Your task to perform on an android device: Search for "razer blackwidow" on target, select the first entry, and add it to the cart. Image 0: 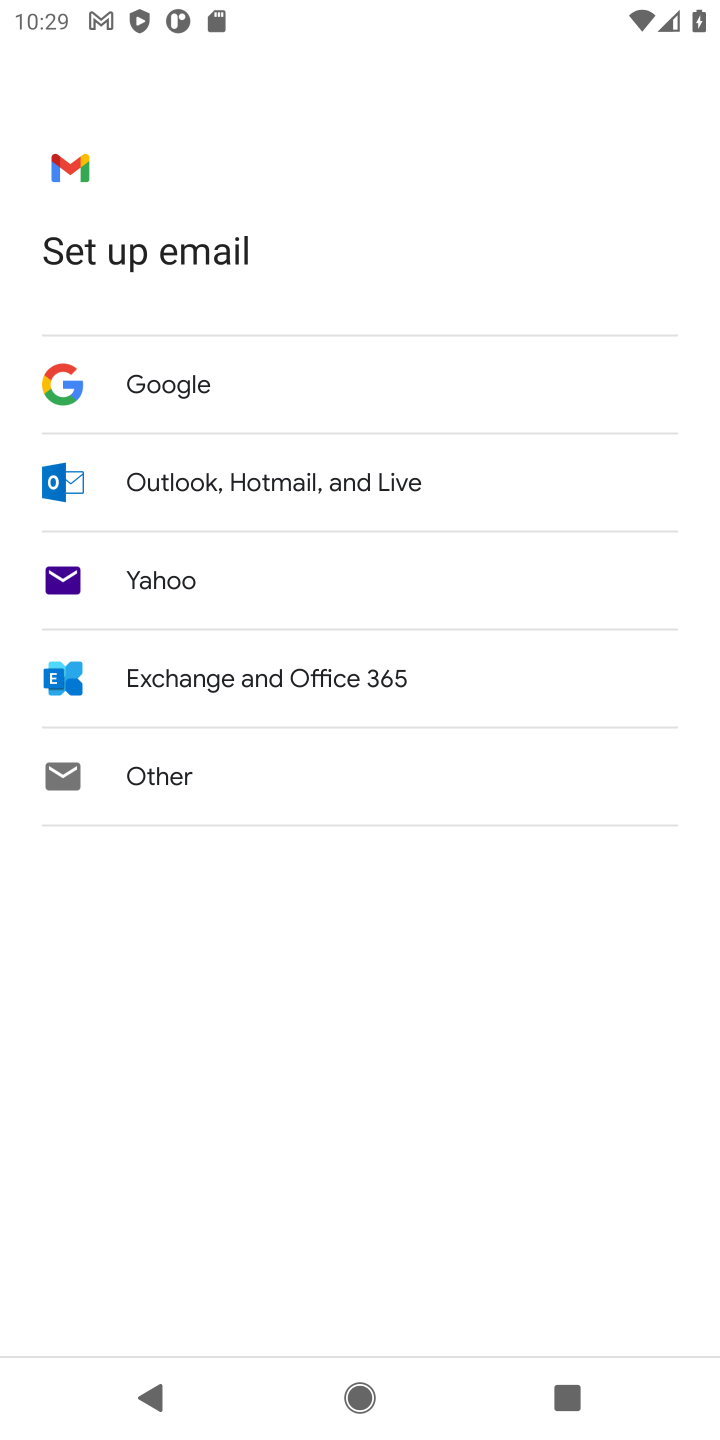
Step 0: press home button
Your task to perform on an android device: Search for "razer blackwidow" on target, select the first entry, and add it to the cart. Image 1: 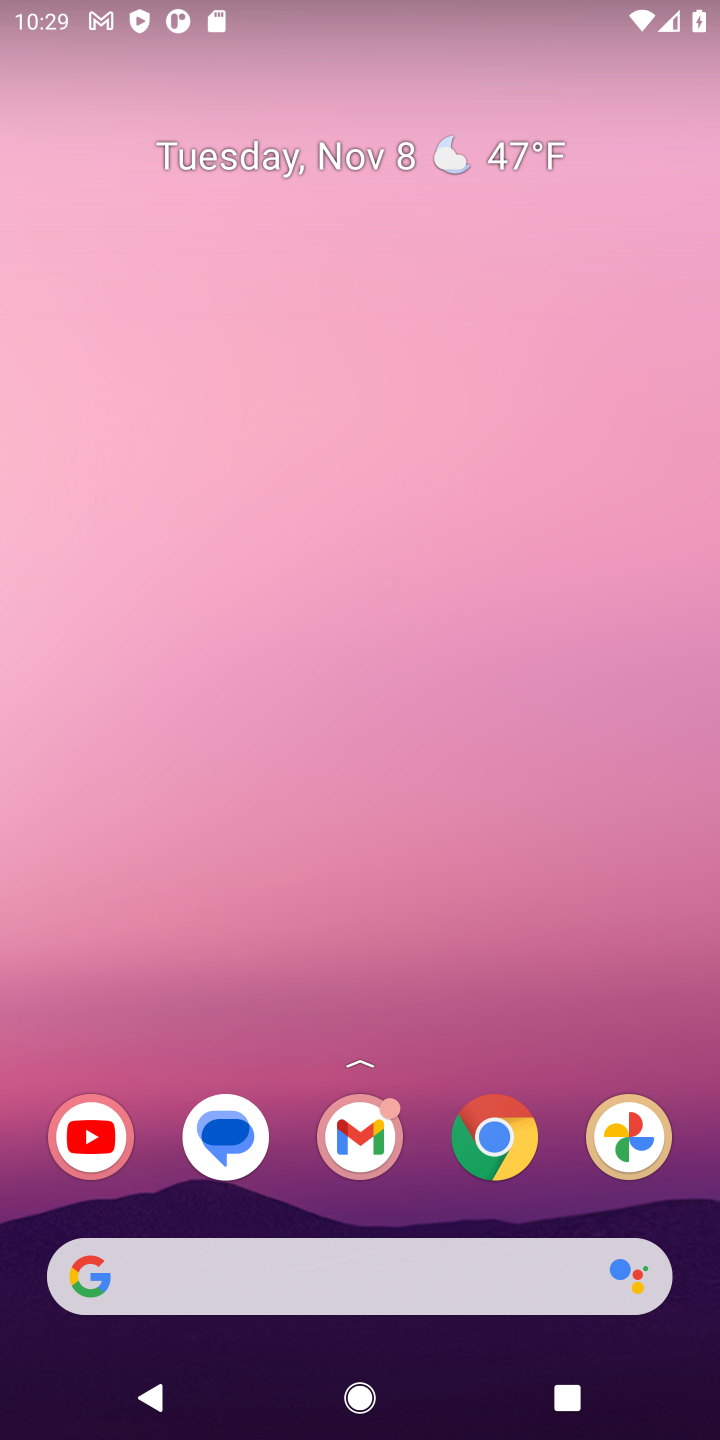
Step 1: click (496, 1141)
Your task to perform on an android device: Search for "razer blackwidow" on target, select the first entry, and add it to the cart. Image 2: 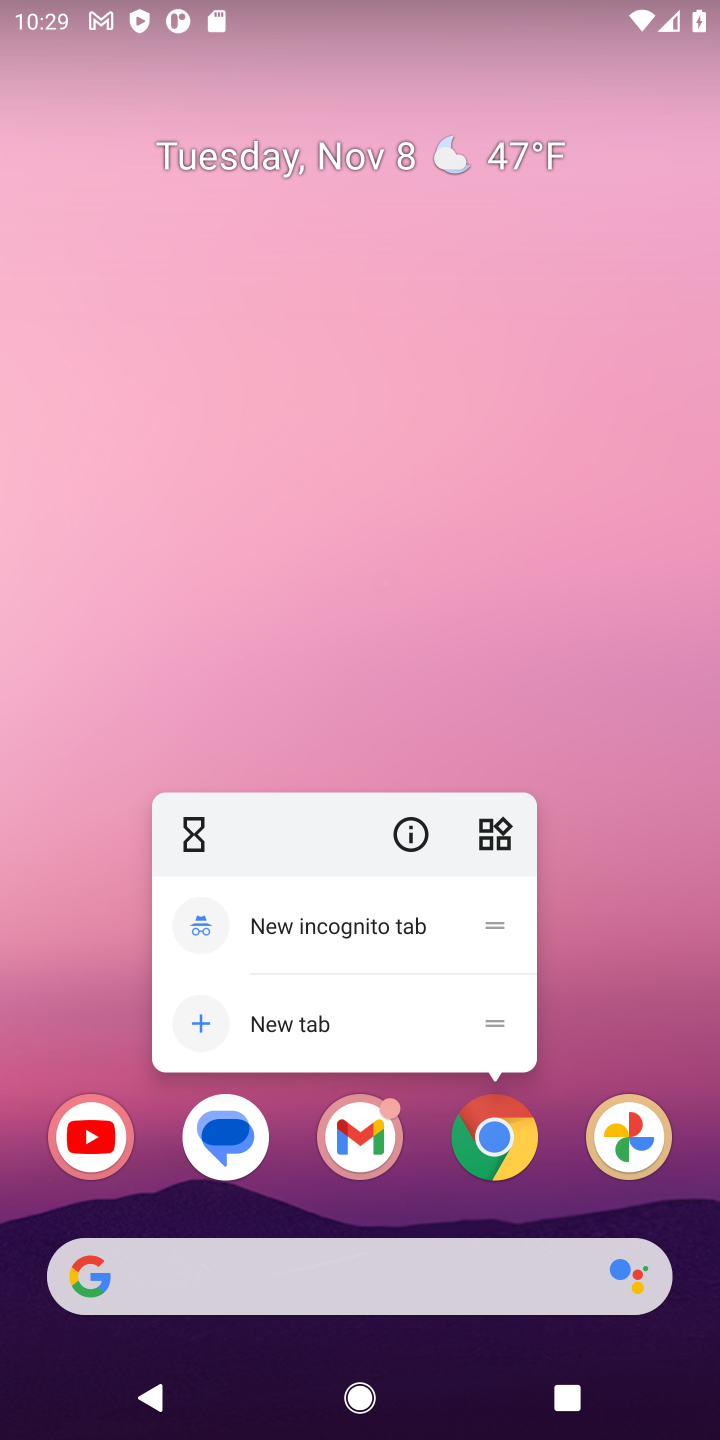
Step 2: click (496, 1141)
Your task to perform on an android device: Search for "razer blackwidow" on target, select the first entry, and add it to the cart. Image 3: 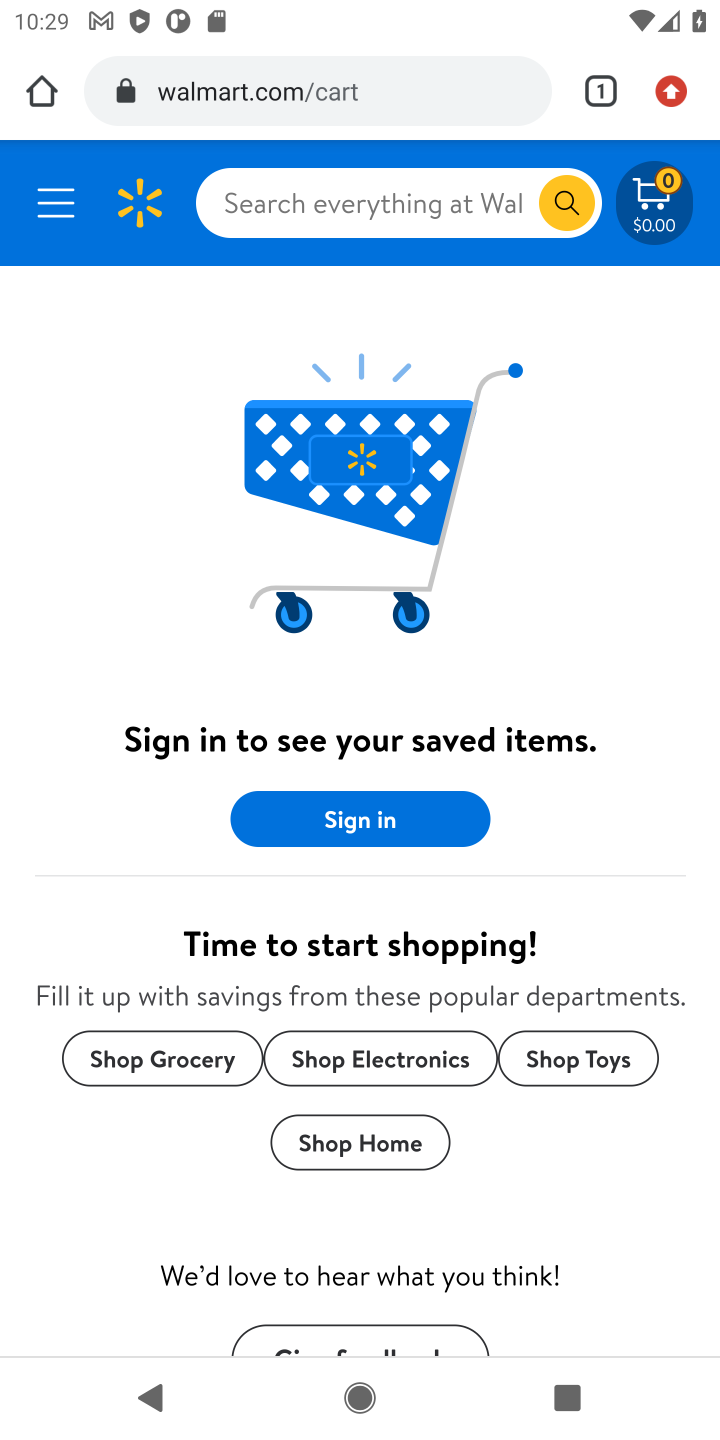
Step 3: click (311, 86)
Your task to perform on an android device: Search for "razer blackwidow" on target, select the first entry, and add it to the cart. Image 4: 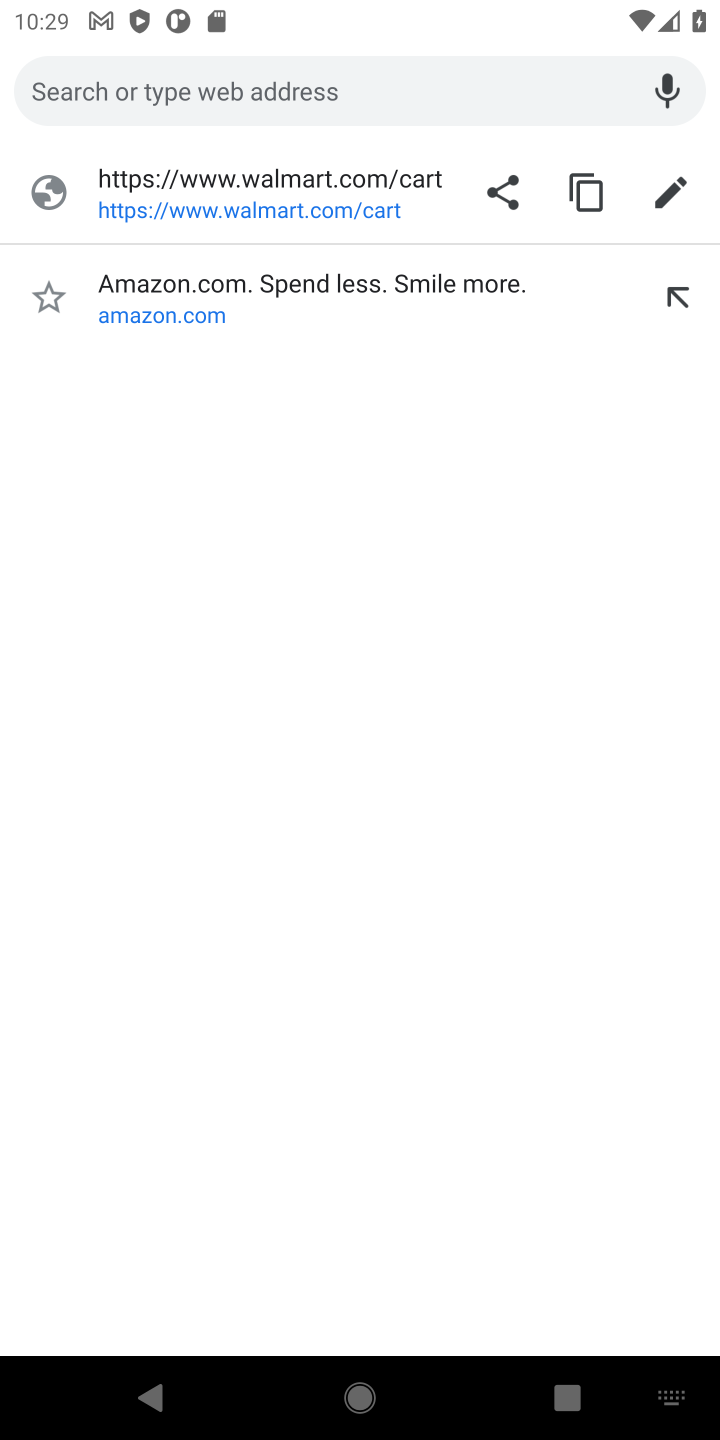
Step 4: type "target"
Your task to perform on an android device: Search for "razer blackwidow" on target, select the first entry, and add it to the cart. Image 5: 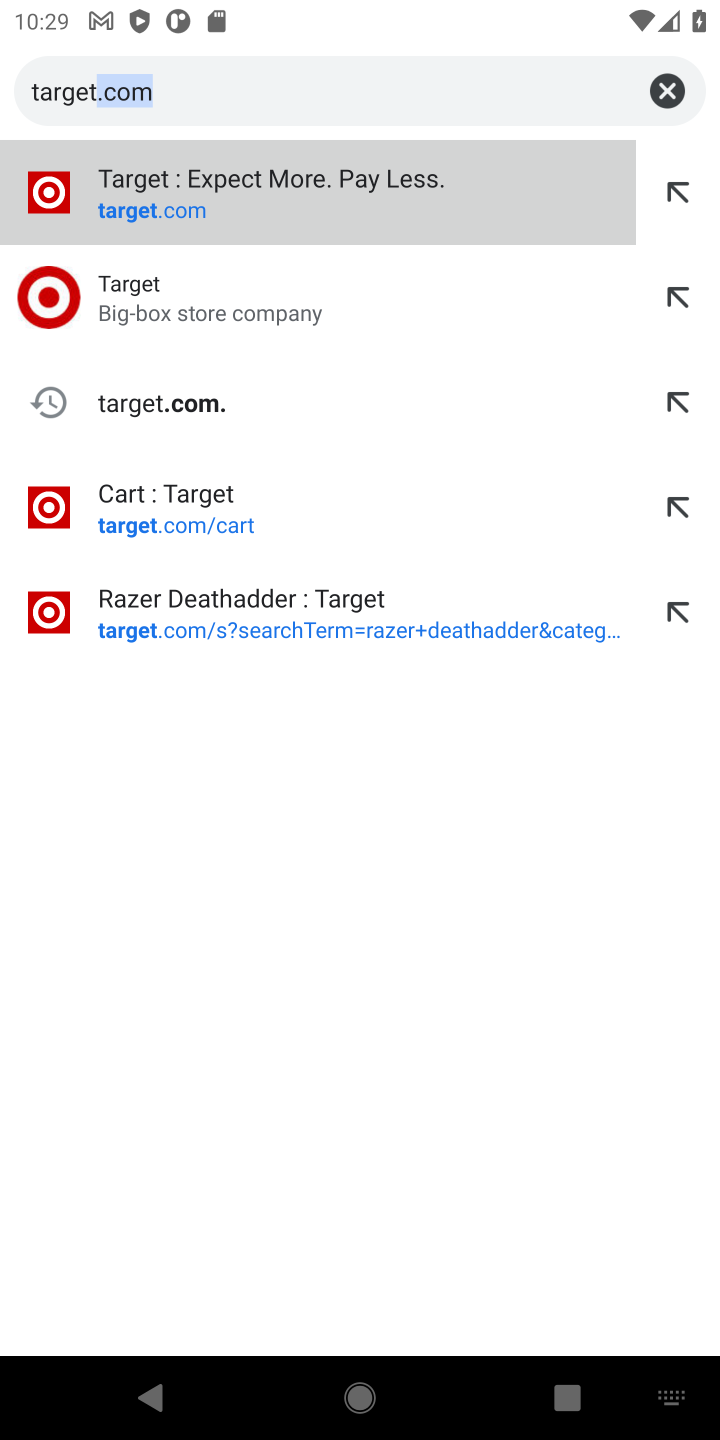
Step 5: click (158, 313)
Your task to perform on an android device: Search for "razer blackwidow" on target, select the first entry, and add it to the cart. Image 6: 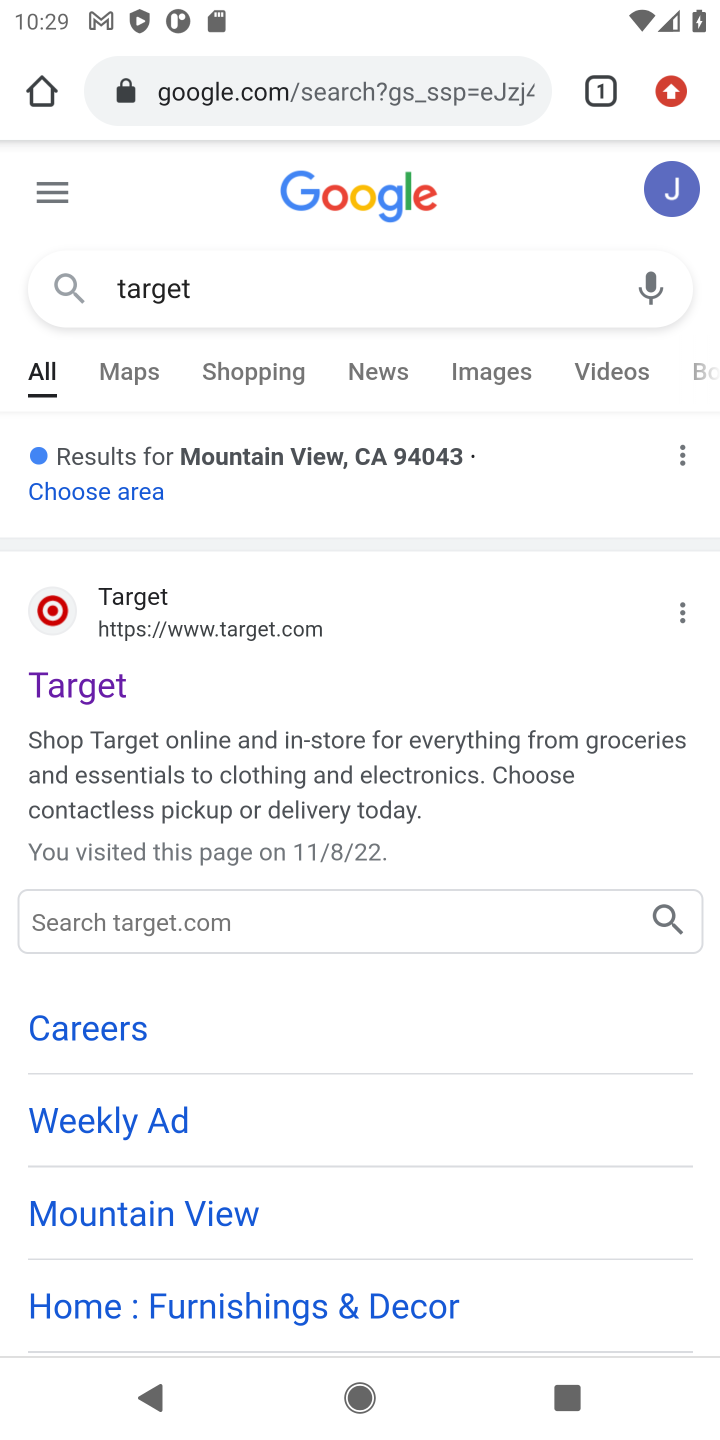
Step 6: click (161, 667)
Your task to perform on an android device: Search for "razer blackwidow" on target, select the first entry, and add it to the cart. Image 7: 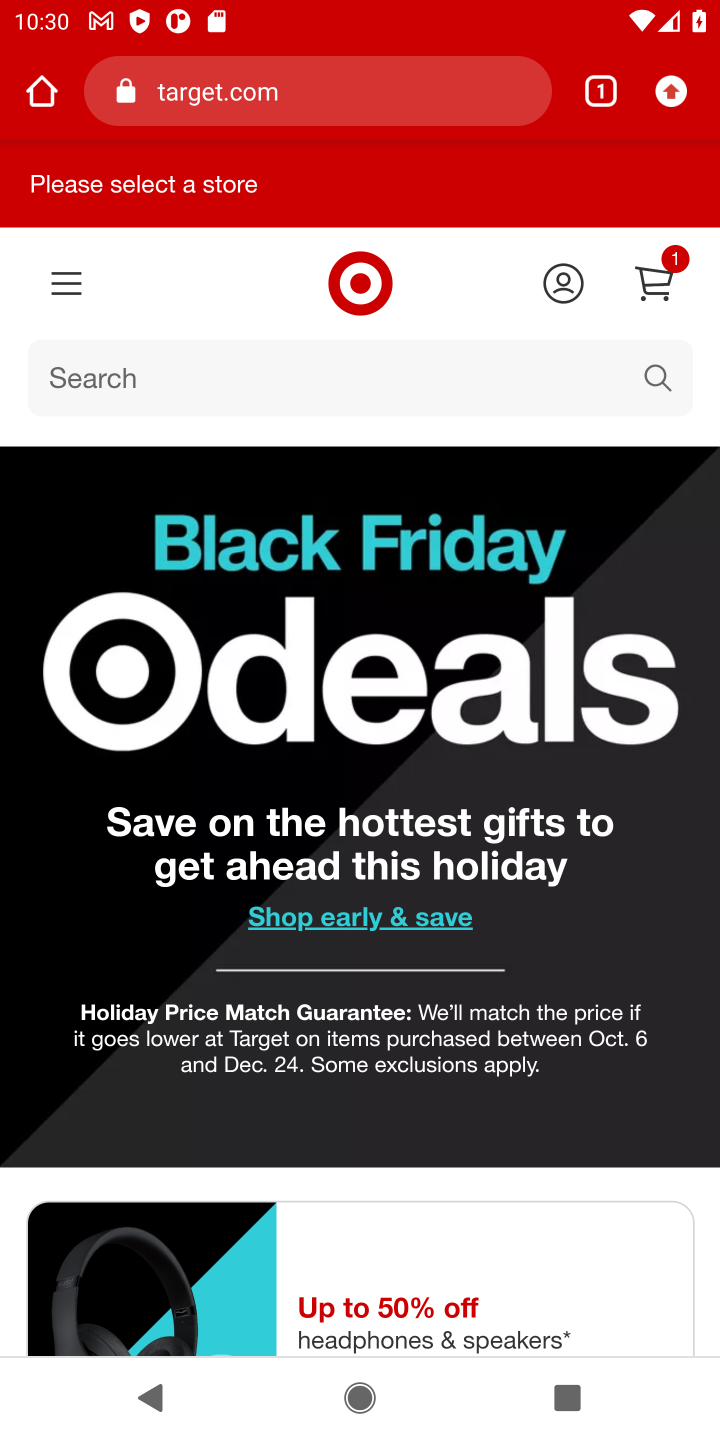
Step 7: click (191, 371)
Your task to perform on an android device: Search for "razer blackwidow" on target, select the first entry, and add it to the cart. Image 8: 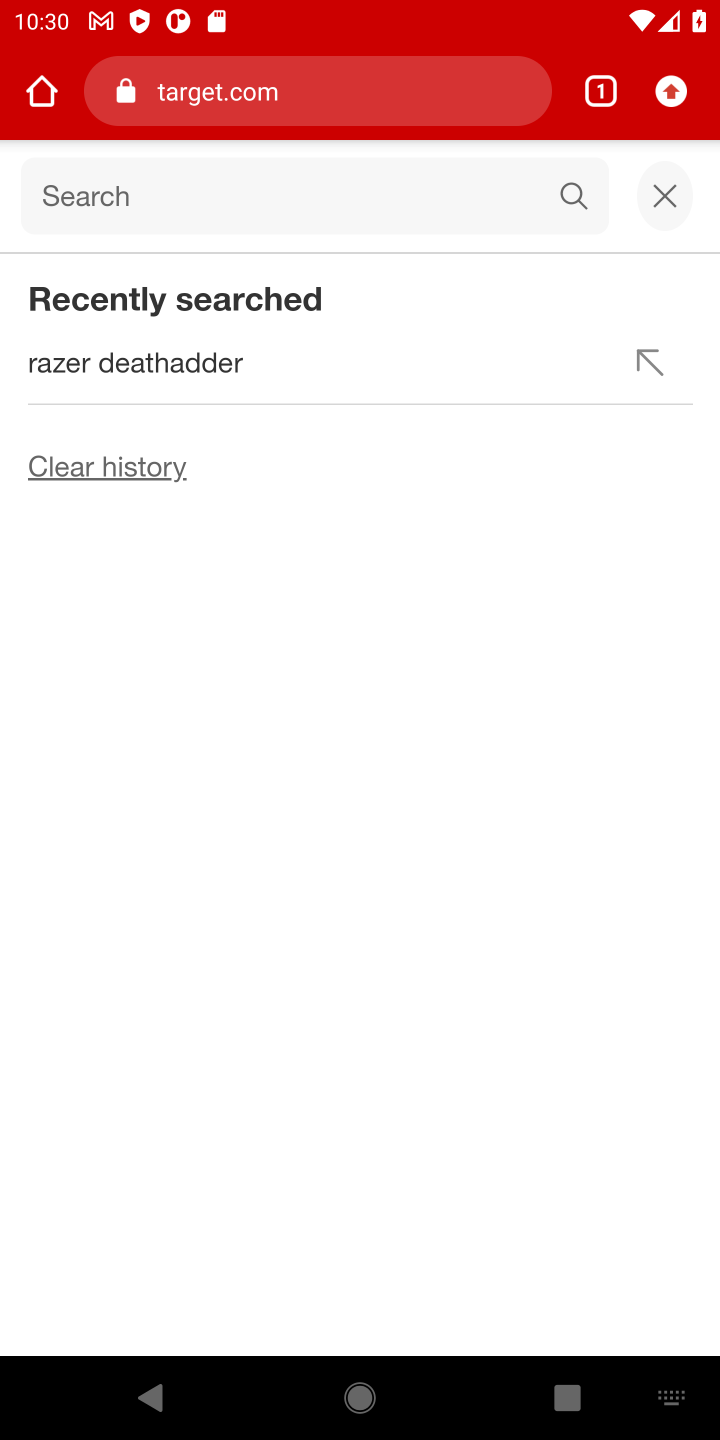
Step 8: type "razer blackwidow"
Your task to perform on an android device: Search for "razer blackwidow" on target, select the first entry, and add it to the cart. Image 9: 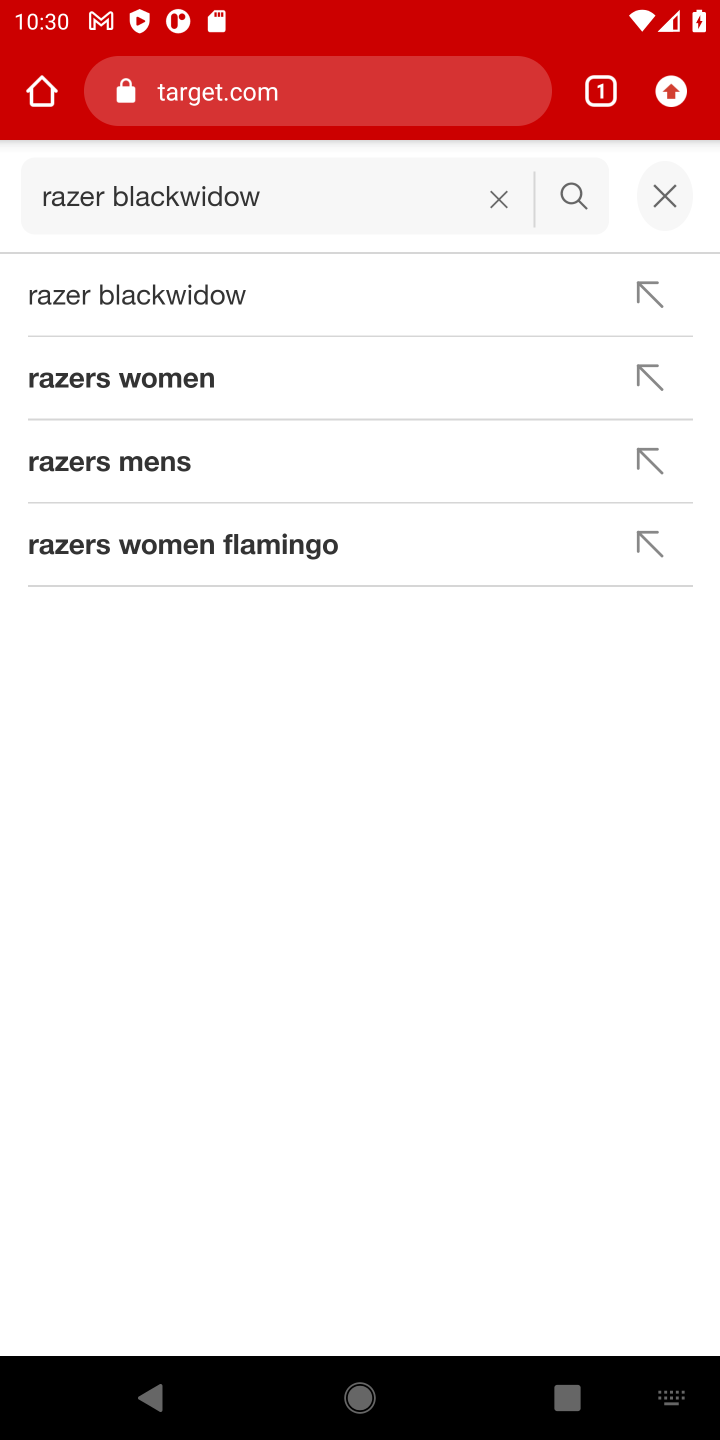
Step 9: click (170, 301)
Your task to perform on an android device: Search for "razer blackwidow" on target, select the first entry, and add it to the cart. Image 10: 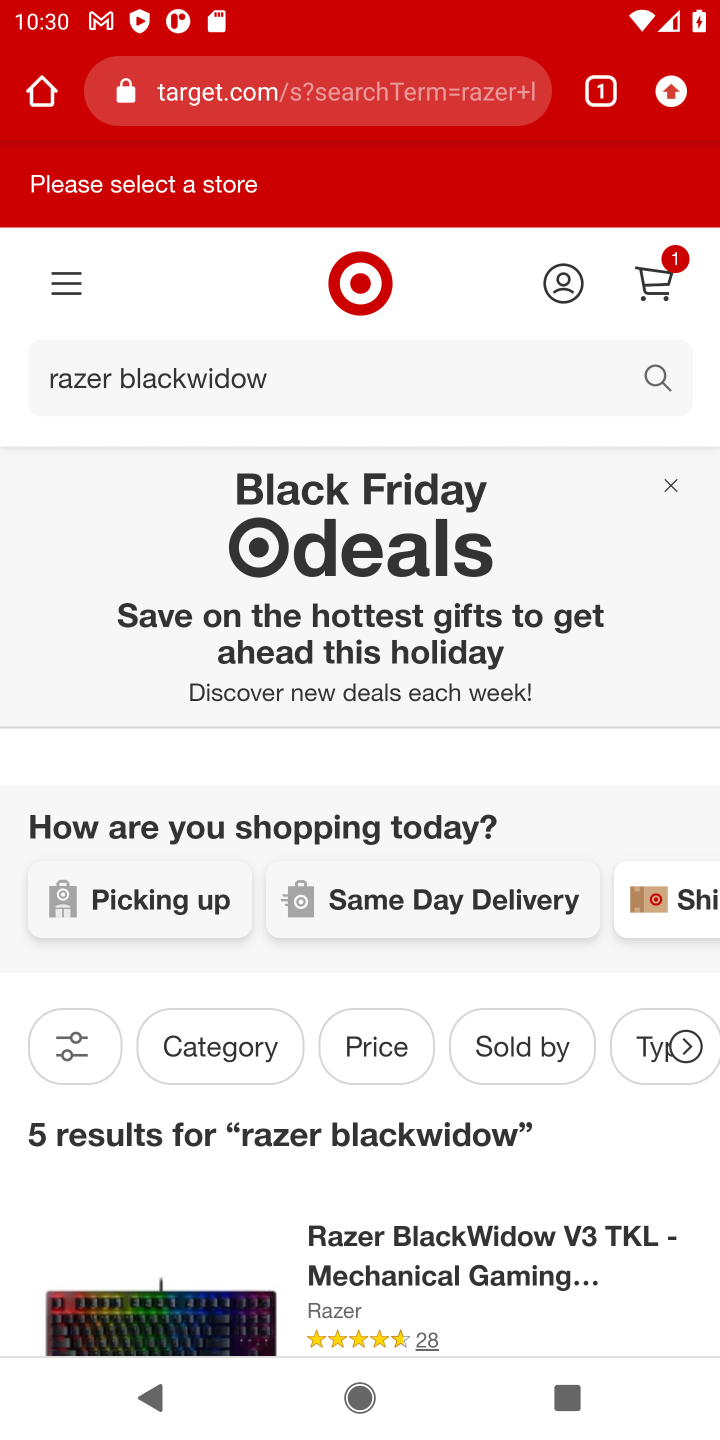
Step 10: drag from (480, 1217) to (421, 770)
Your task to perform on an android device: Search for "razer blackwidow" on target, select the first entry, and add it to the cart. Image 11: 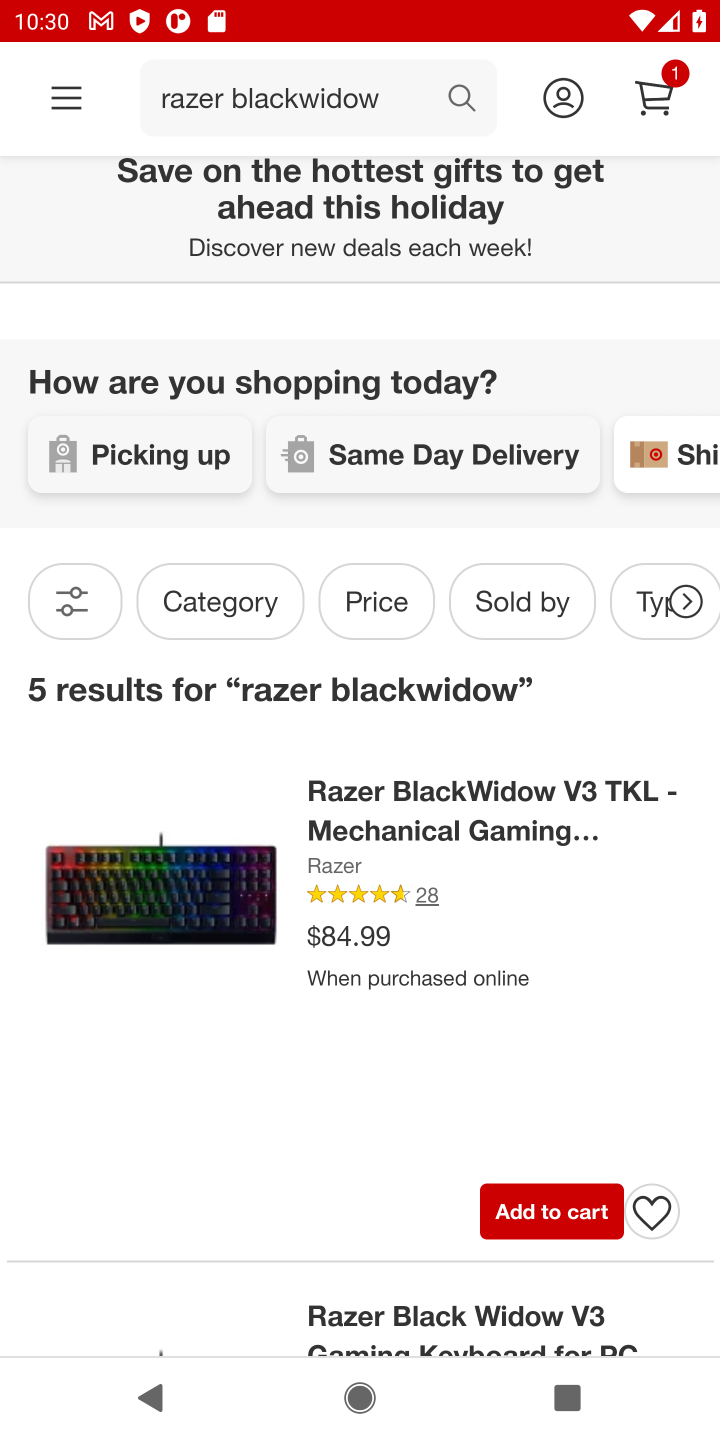
Step 11: click (554, 1219)
Your task to perform on an android device: Search for "razer blackwidow" on target, select the first entry, and add it to the cart. Image 12: 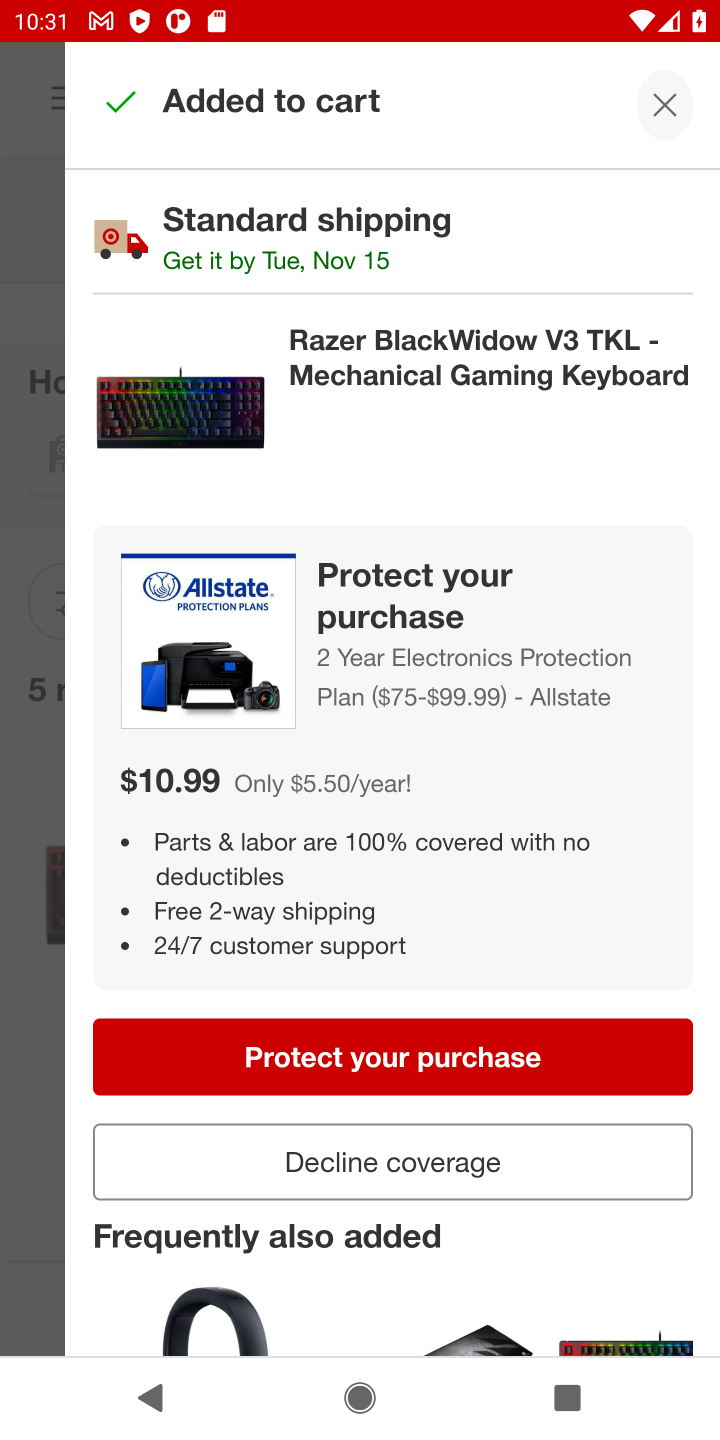
Step 12: click (371, 1169)
Your task to perform on an android device: Search for "razer blackwidow" on target, select the first entry, and add it to the cart. Image 13: 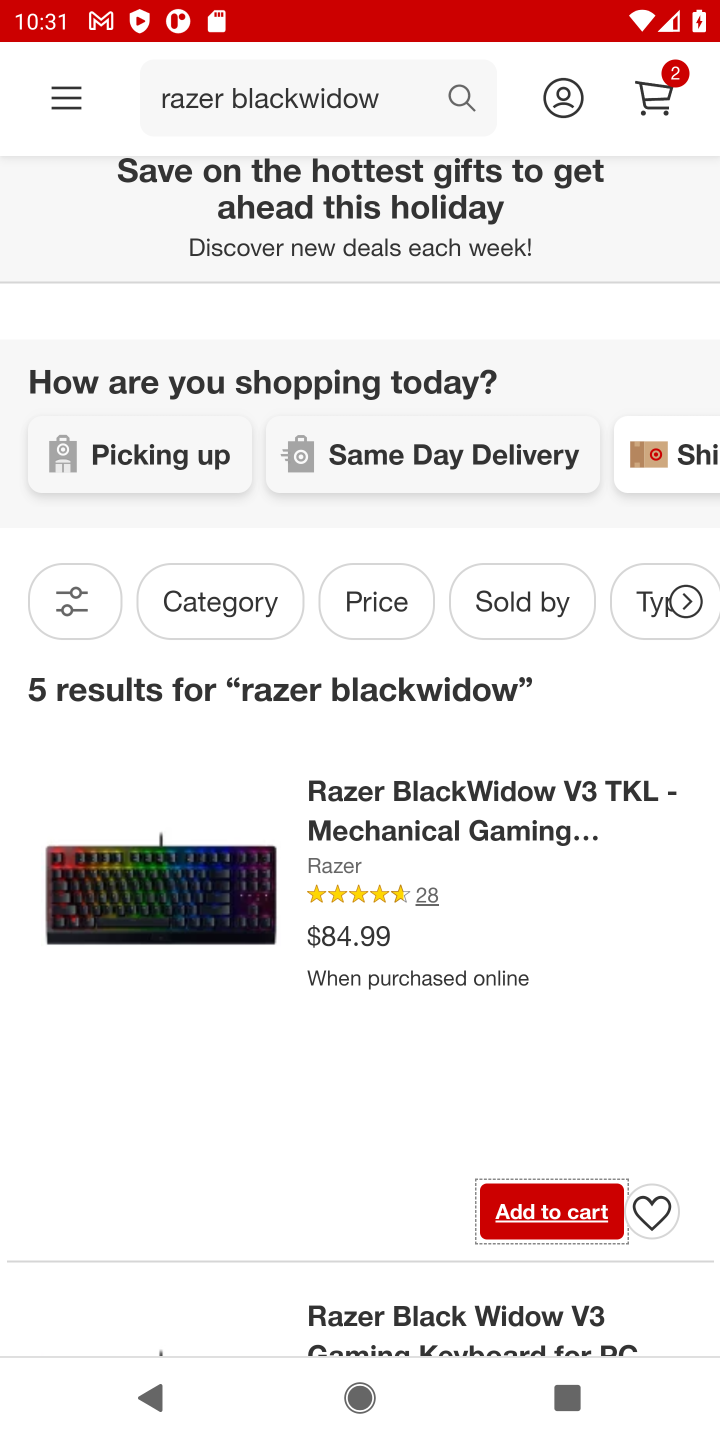
Step 13: task complete